Your task to perform on an android device: Go to CNN.com Image 0: 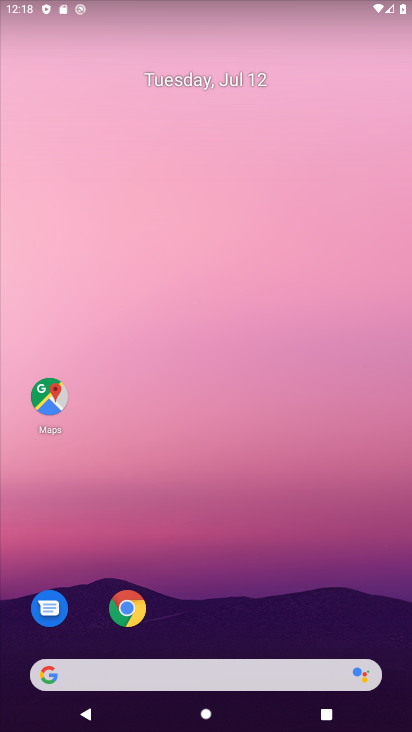
Step 0: drag from (305, 506) to (290, 254)
Your task to perform on an android device: Go to CNN.com Image 1: 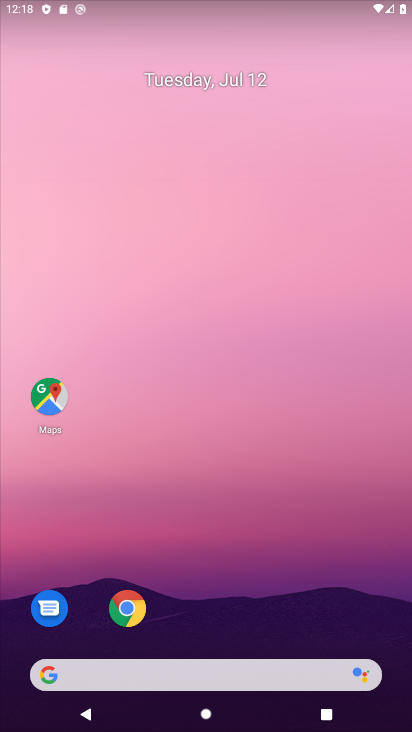
Step 1: drag from (252, 678) to (140, 238)
Your task to perform on an android device: Go to CNN.com Image 2: 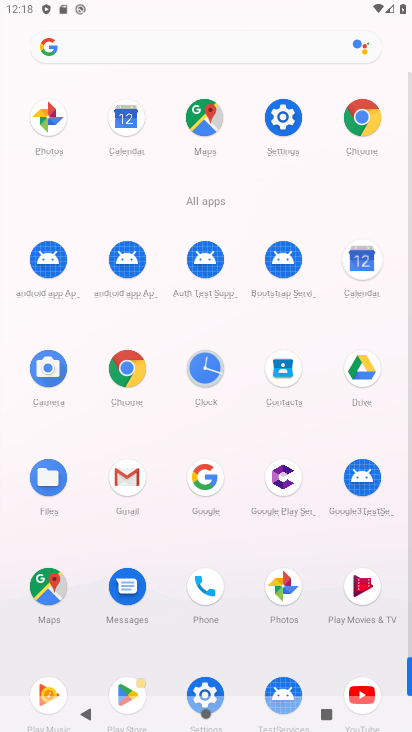
Step 2: click (376, 112)
Your task to perform on an android device: Go to CNN.com Image 3: 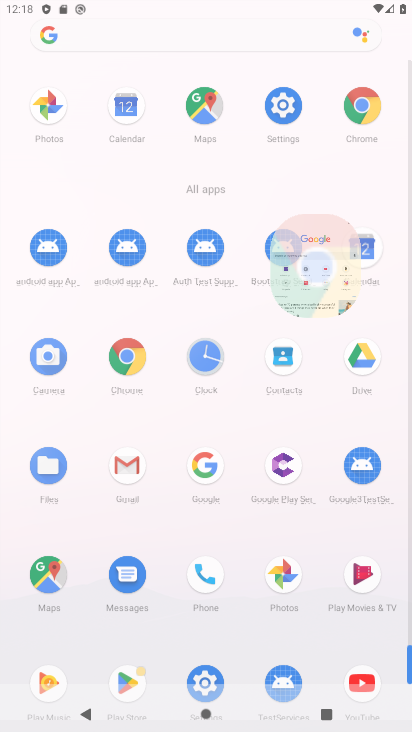
Step 3: click (350, 133)
Your task to perform on an android device: Go to CNN.com Image 4: 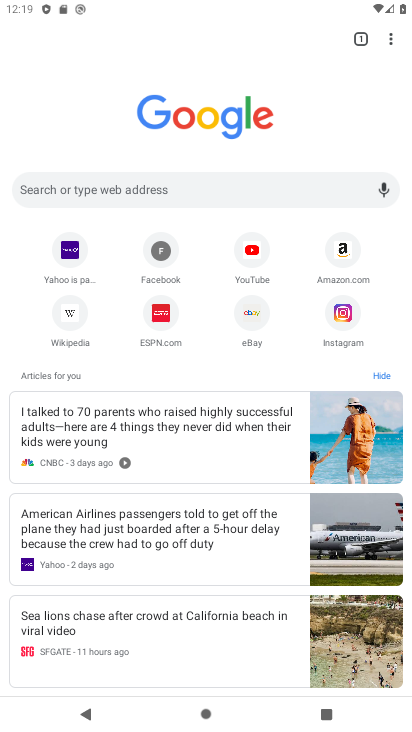
Step 4: click (74, 187)
Your task to perform on an android device: Go to CNN.com Image 5: 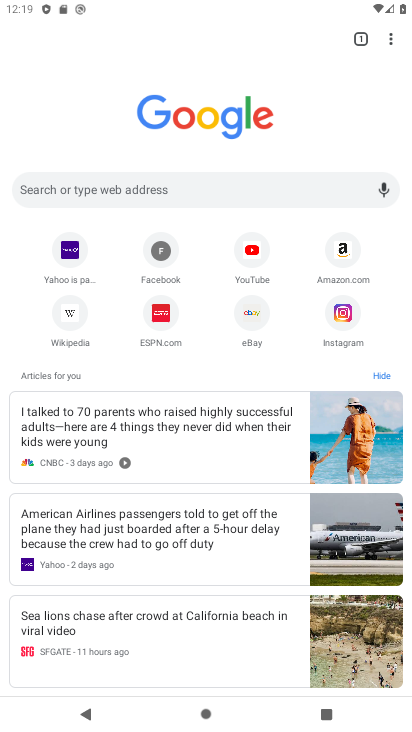
Step 5: click (85, 187)
Your task to perform on an android device: Go to CNN.com Image 6: 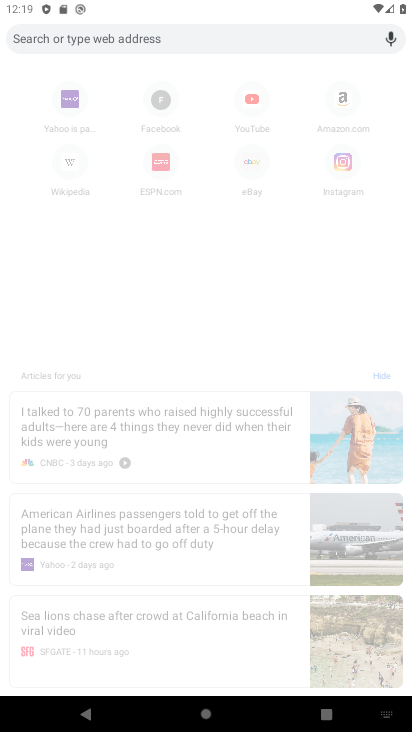
Step 6: type "CNN.com"
Your task to perform on an android device: Go to CNN.com Image 7: 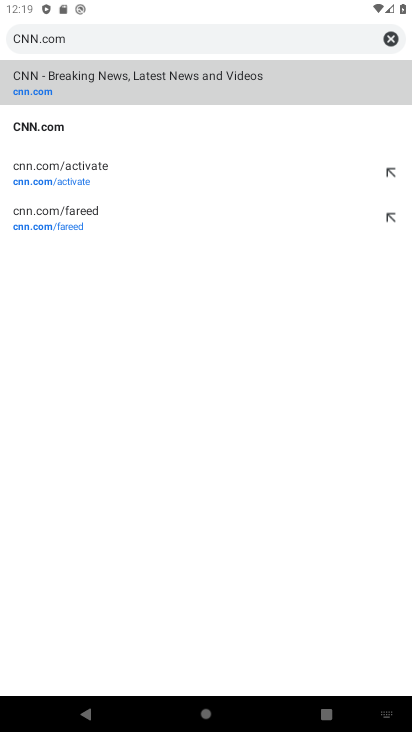
Step 7: click (89, 78)
Your task to perform on an android device: Go to CNN.com Image 8: 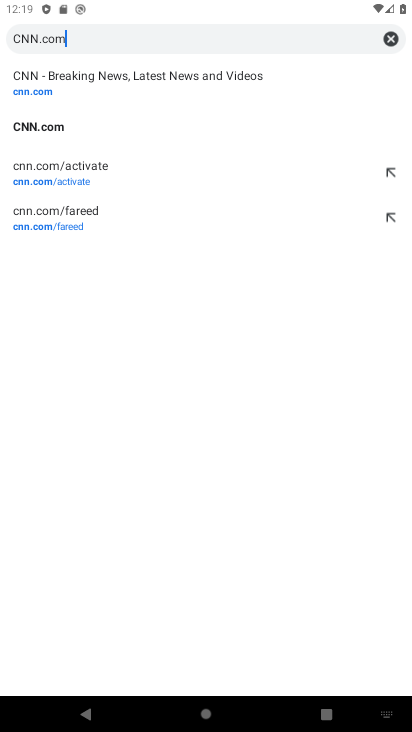
Step 8: click (89, 78)
Your task to perform on an android device: Go to CNN.com Image 9: 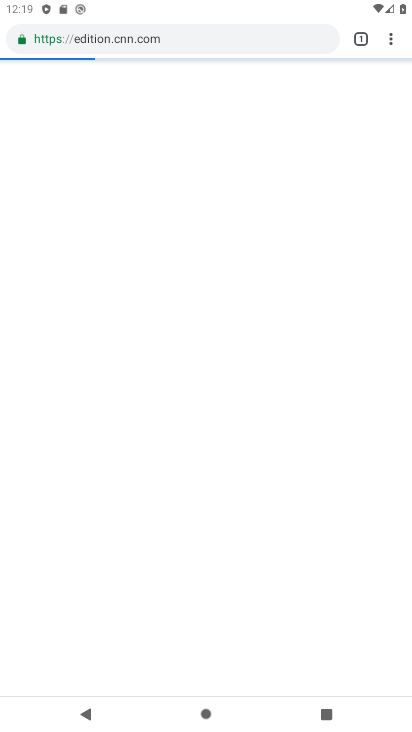
Step 9: task complete